Your task to perform on an android device: turn on location history Image 0: 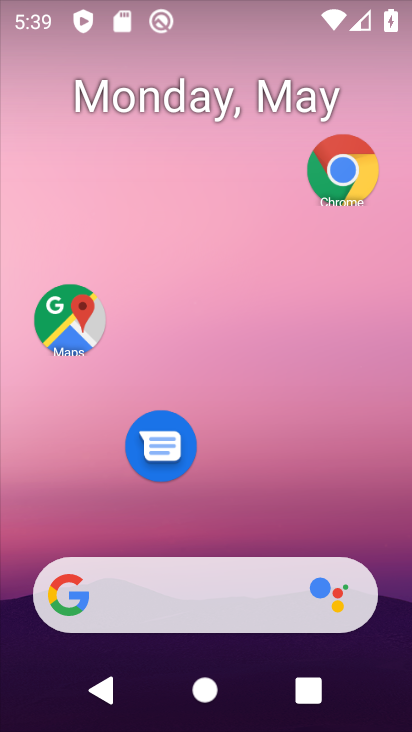
Step 0: drag from (285, 179) to (294, 128)
Your task to perform on an android device: turn on location history Image 1: 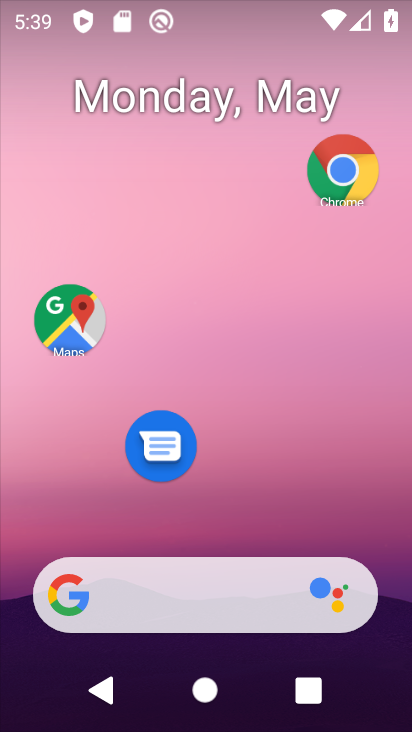
Step 1: drag from (277, 524) to (332, 186)
Your task to perform on an android device: turn on location history Image 2: 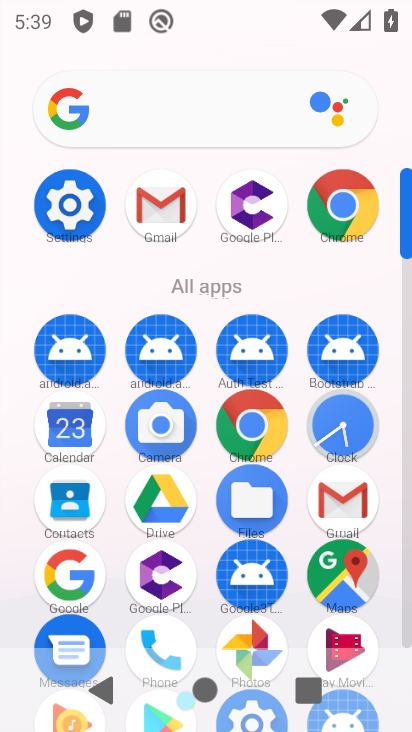
Step 2: click (342, 573)
Your task to perform on an android device: turn on location history Image 3: 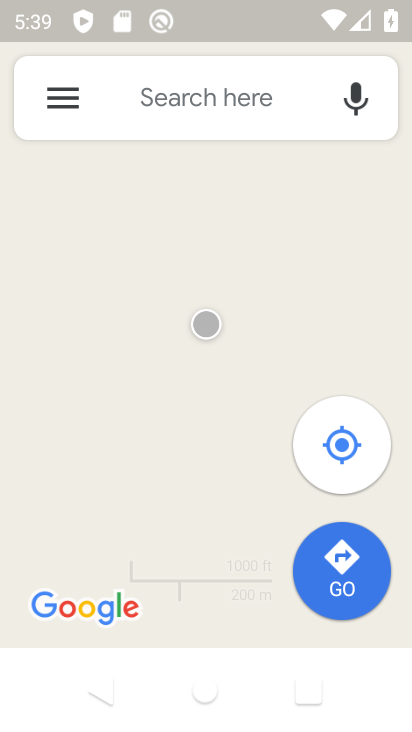
Step 3: click (62, 99)
Your task to perform on an android device: turn on location history Image 4: 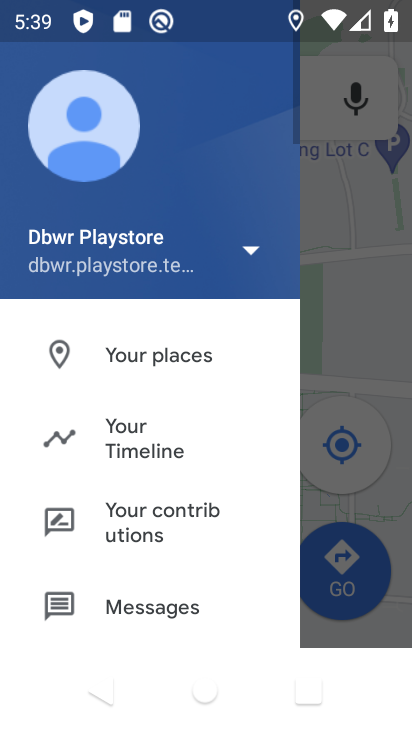
Step 4: click (121, 438)
Your task to perform on an android device: turn on location history Image 5: 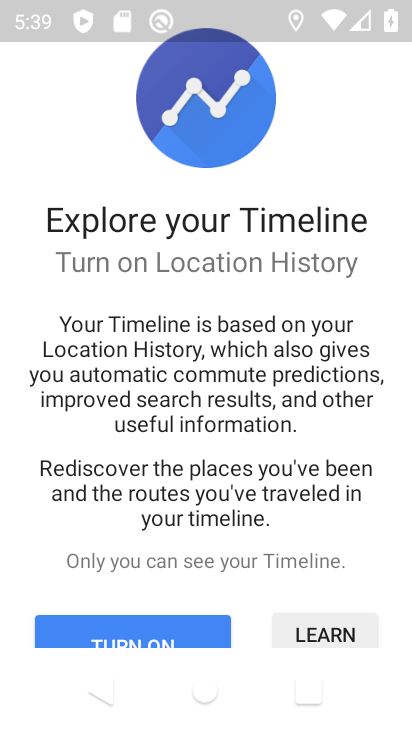
Step 5: drag from (220, 591) to (209, 242)
Your task to perform on an android device: turn on location history Image 6: 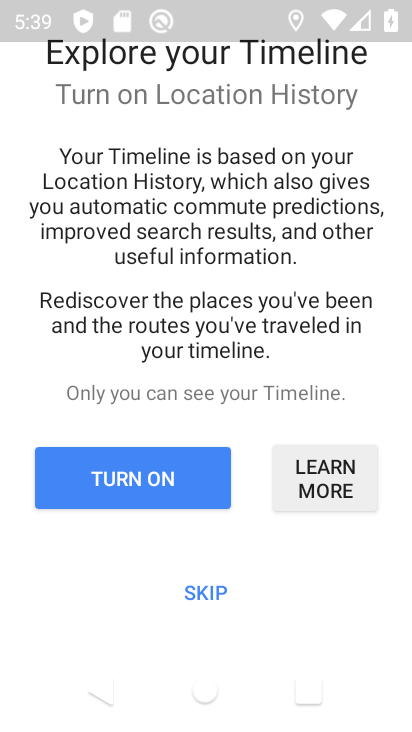
Step 6: click (176, 476)
Your task to perform on an android device: turn on location history Image 7: 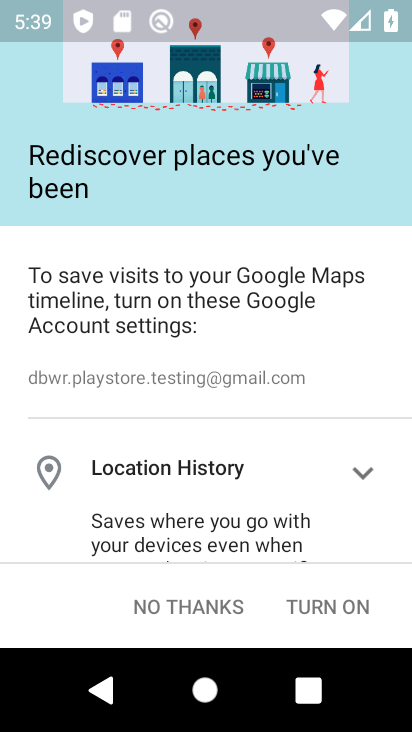
Step 7: click (203, 606)
Your task to perform on an android device: turn on location history Image 8: 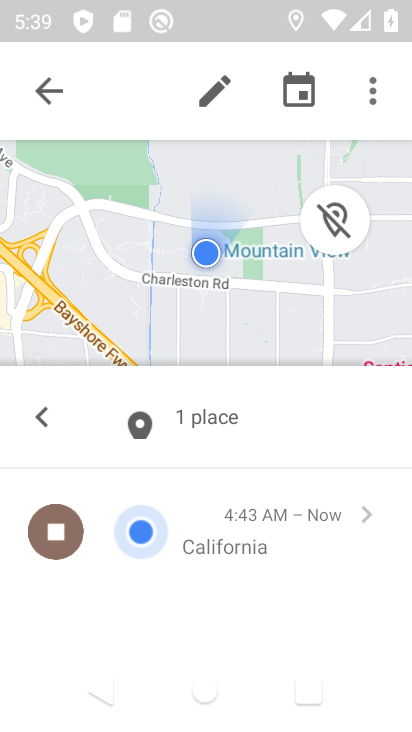
Step 8: click (372, 102)
Your task to perform on an android device: turn on location history Image 9: 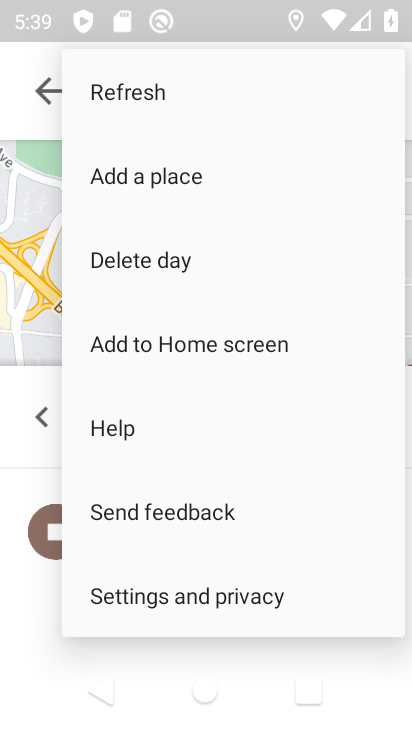
Step 9: click (212, 598)
Your task to perform on an android device: turn on location history Image 10: 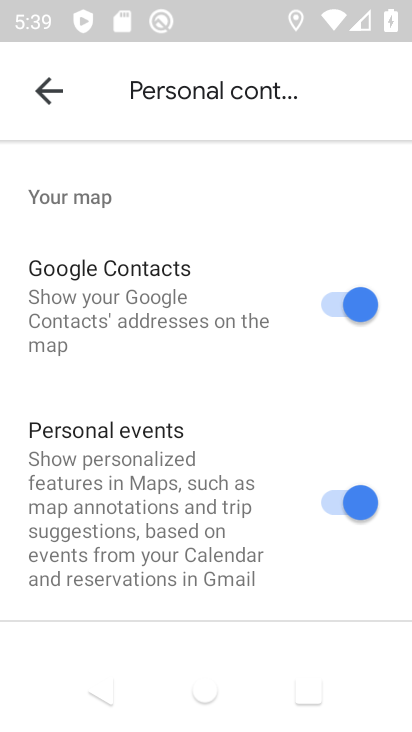
Step 10: drag from (257, 249) to (257, 193)
Your task to perform on an android device: turn on location history Image 11: 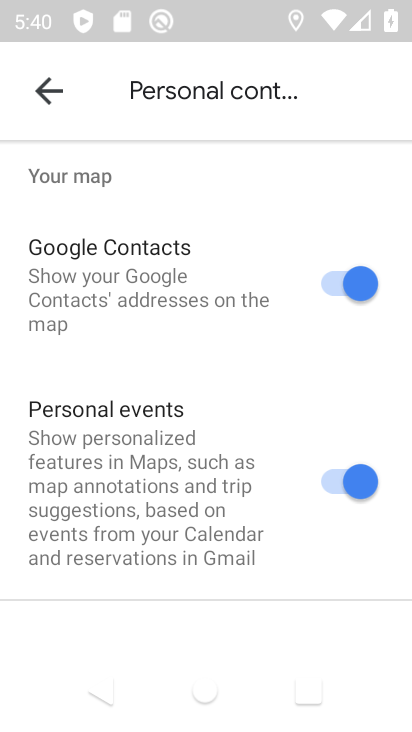
Step 11: drag from (319, 494) to (293, 180)
Your task to perform on an android device: turn on location history Image 12: 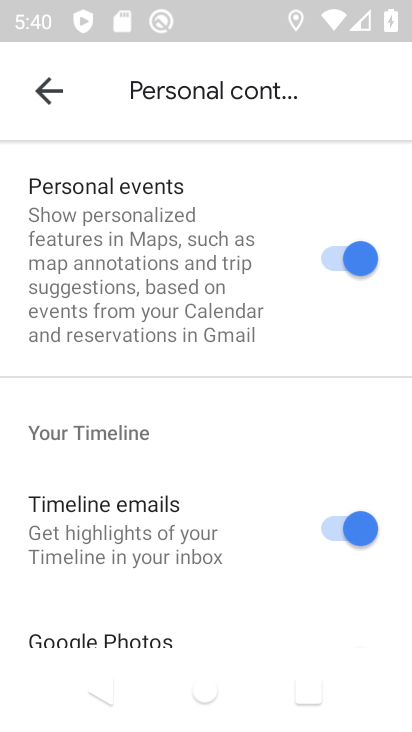
Step 12: drag from (285, 518) to (270, 197)
Your task to perform on an android device: turn on location history Image 13: 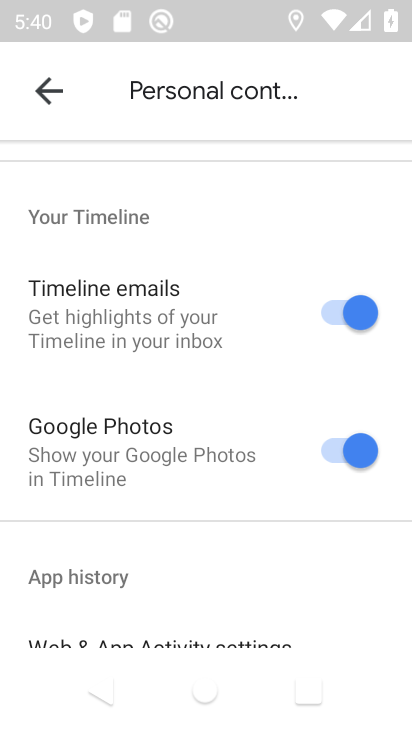
Step 13: drag from (245, 542) to (267, 224)
Your task to perform on an android device: turn on location history Image 14: 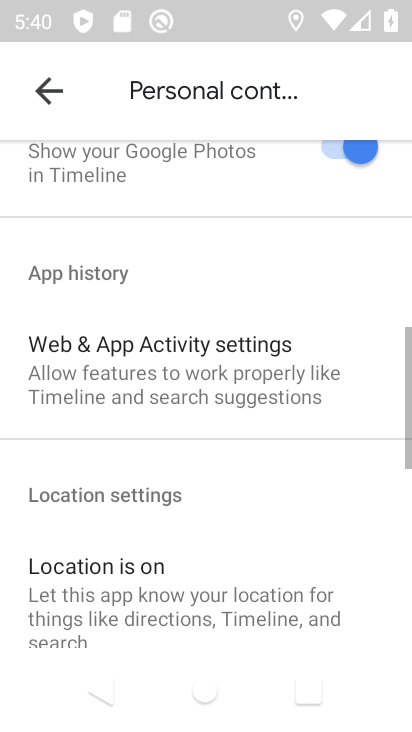
Step 14: drag from (271, 591) to (267, 288)
Your task to perform on an android device: turn on location history Image 15: 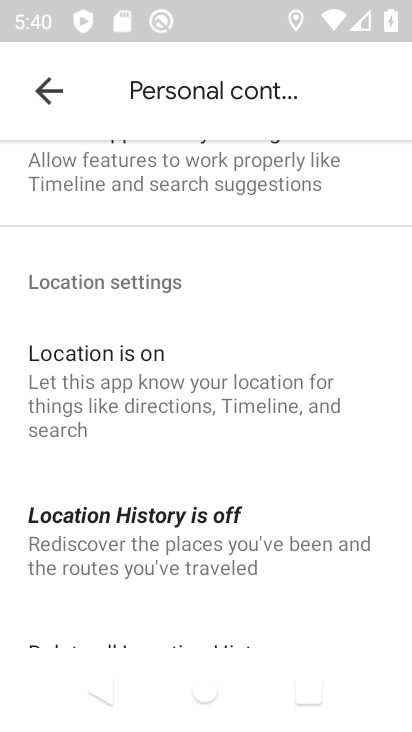
Step 15: click (171, 526)
Your task to perform on an android device: turn on location history Image 16: 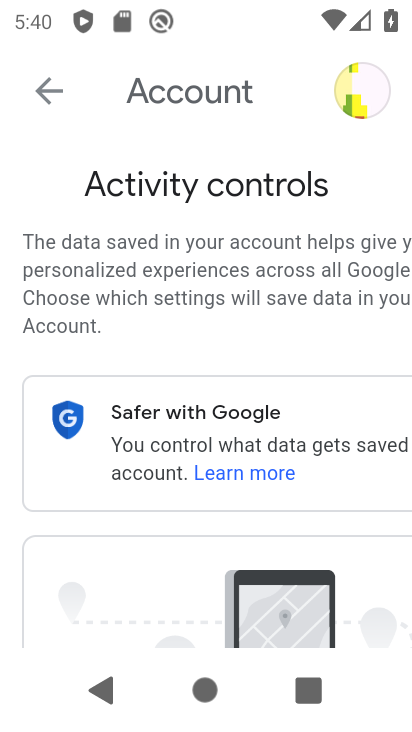
Step 16: drag from (164, 603) to (204, 247)
Your task to perform on an android device: turn on location history Image 17: 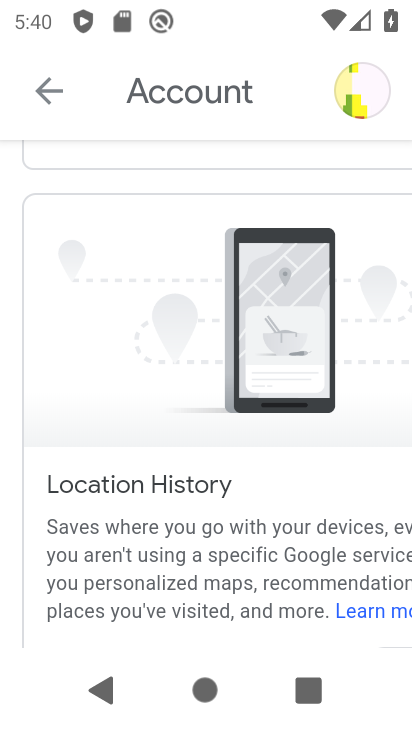
Step 17: drag from (229, 554) to (232, 238)
Your task to perform on an android device: turn on location history Image 18: 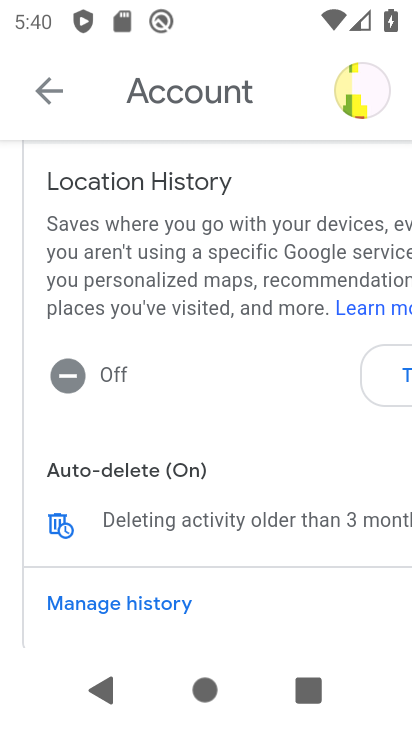
Step 18: click (381, 375)
Your task to perform on an android device: turn on location history Image 19: 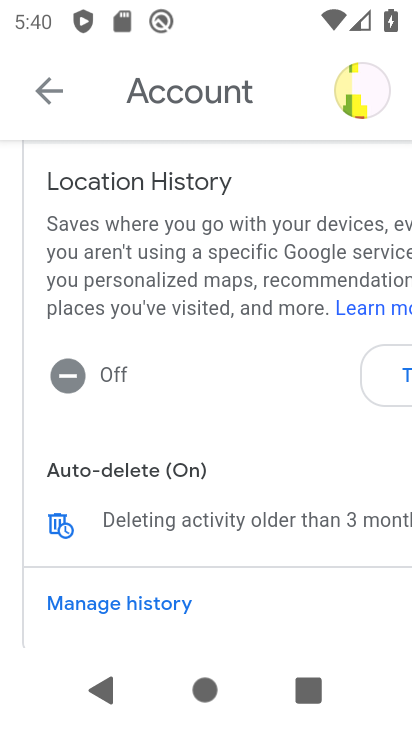
Step 19: click (381, 375)
Your task to perform on an android device: turn on location history Image 20: 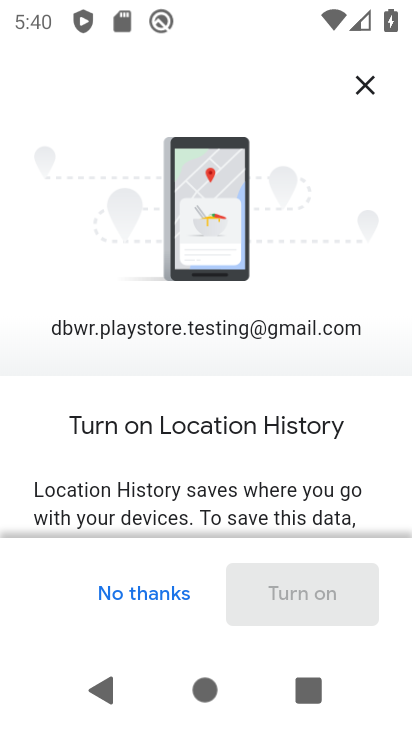
Step 20: drag from (335, 503) to (313, 157)
Your task to perform on an android device: turn on location history Image 21: 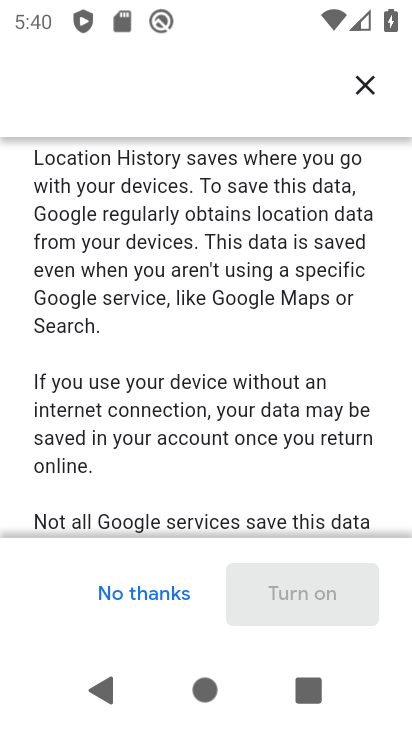
Step 21: drag from (283, 481) to (279, 124)
Your task to perform on an android device: turn on location history Image 22: 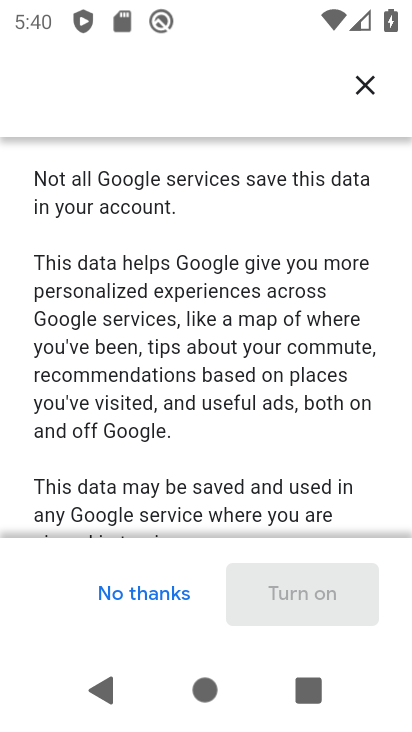
Step 22: drag from (233, 461) to (244, 163)
Your task to perform on an android device: turn on location history Image 23: 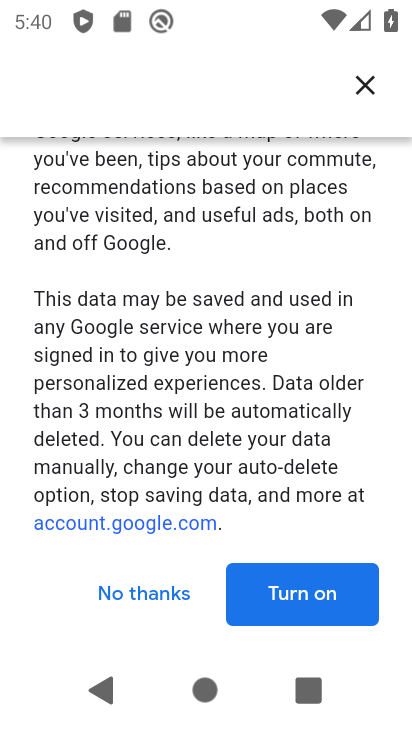
Step 23: click (303, 594)
Your task to perform on an android device: turn on location history Image 24: 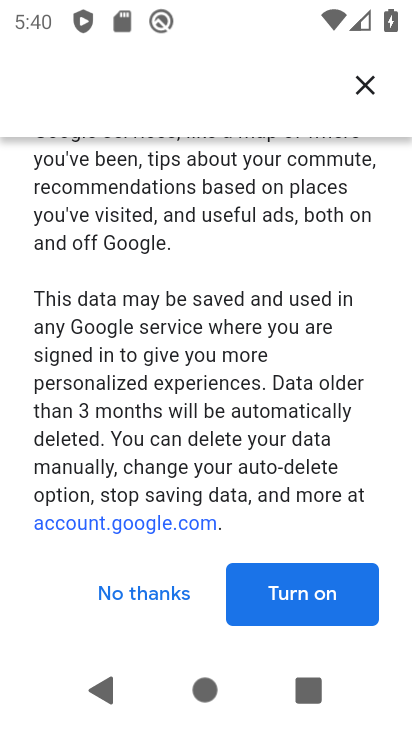
Step 24: click (303, 594)
Your task to perform on an android device: turn on location history Image 25: 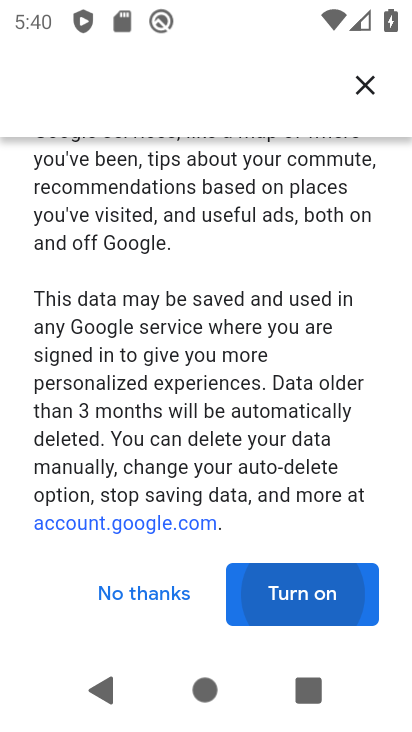
Step 25: click (303, 594)
Your task to perform on an android device: turn on location history Image 26: 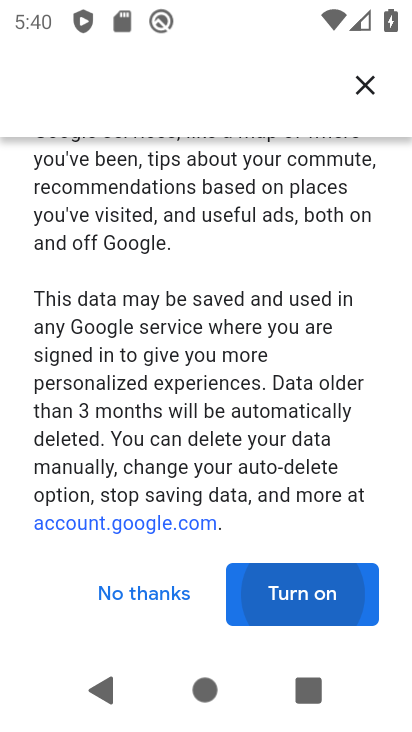
Step 26: click (304, 584)
Your task to perform on an android device: turn on location history Image 27: 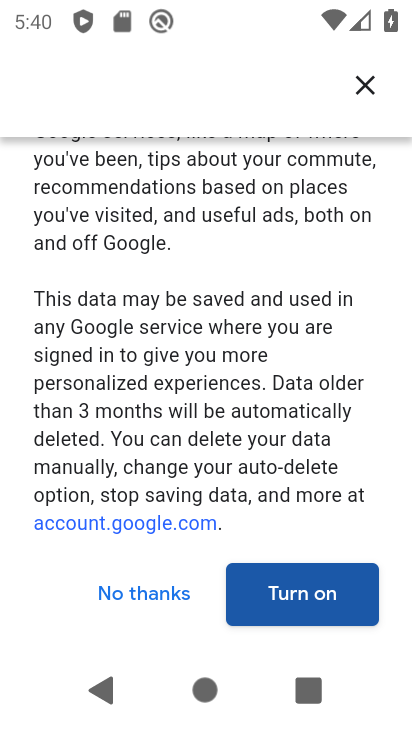
Step 27: click (297, 596)
Your task to perform on an android device: turn on location history Image 28: 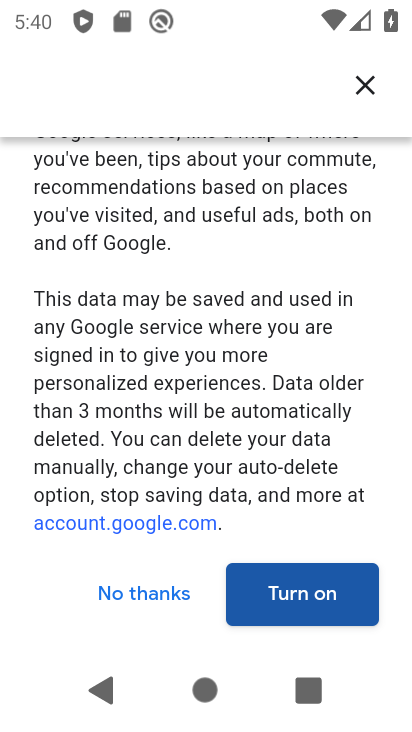
Step 28: click (297, 596)
Your task to perform on an android device: turn on location history Image 29: 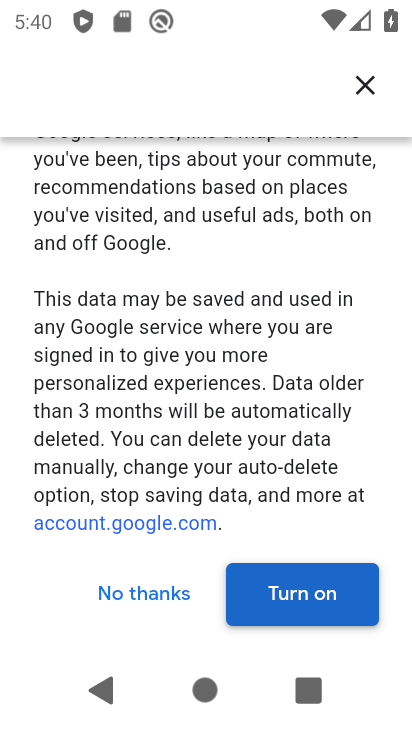
Step 29: click (318, 608)
Your task to perform on an android device: turn on location history Image 30: 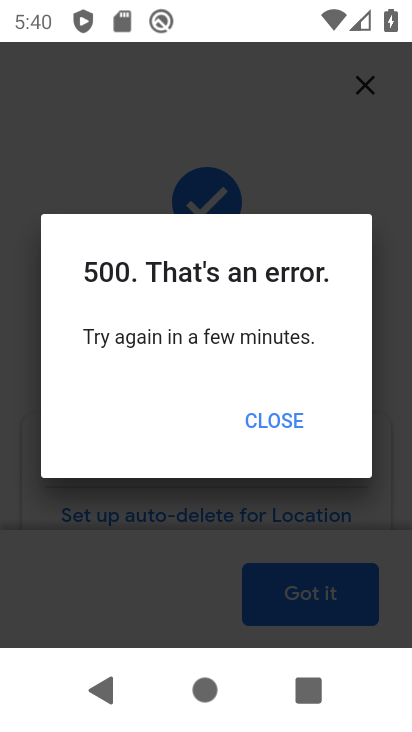
Step 30: click (272, 417)
Your task to perform on an android device: turn on location history Image 31: 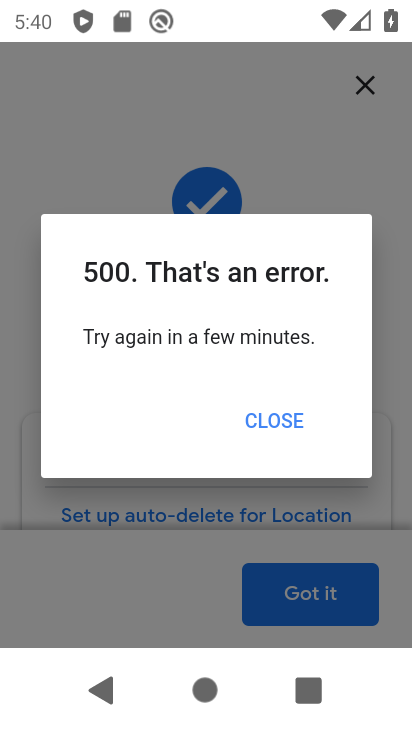
Step 31: click (280, 429)
Your task to perform on an android device: turn on location history Image 32: 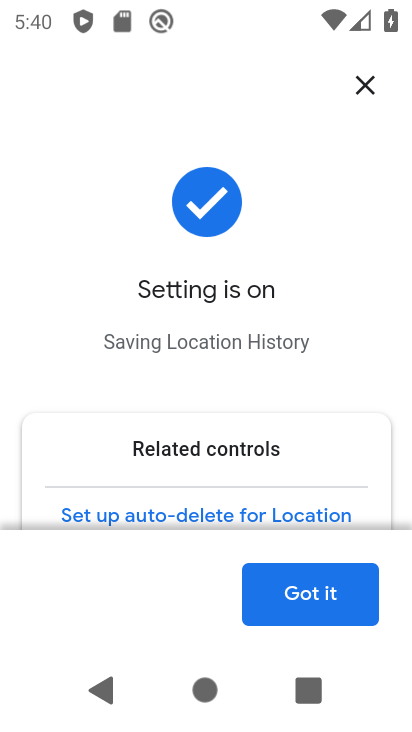
Step 32: click (316, 611)
Your task to perform on an android device: turn on location history Image 33: 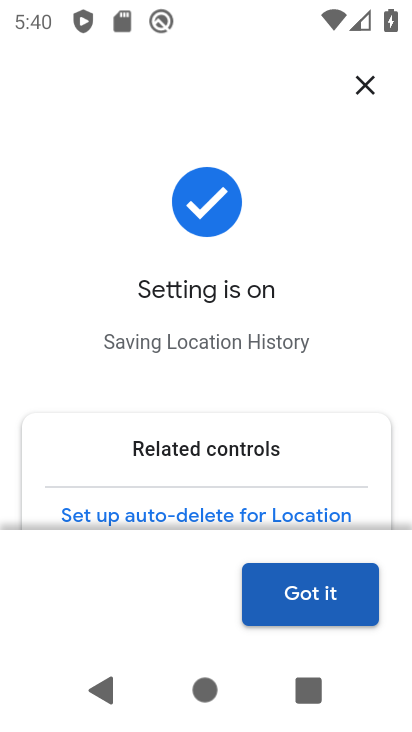
Step 33: task complete